Your task to perform on an android device: toggle wifi Image 0: 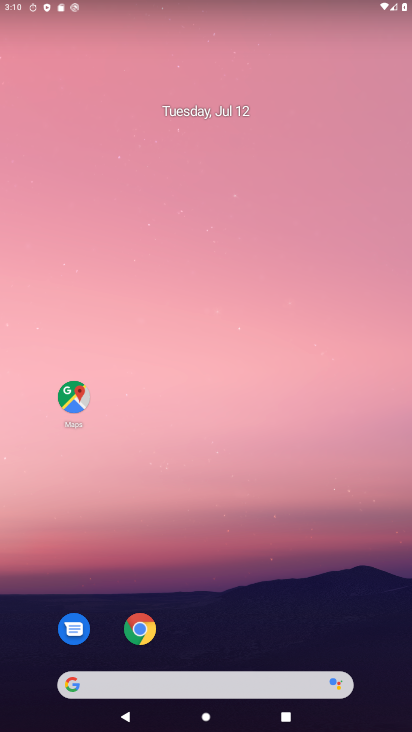
Step 0: press home button
Your task to perform on an android device: toggle wifi Image 1: 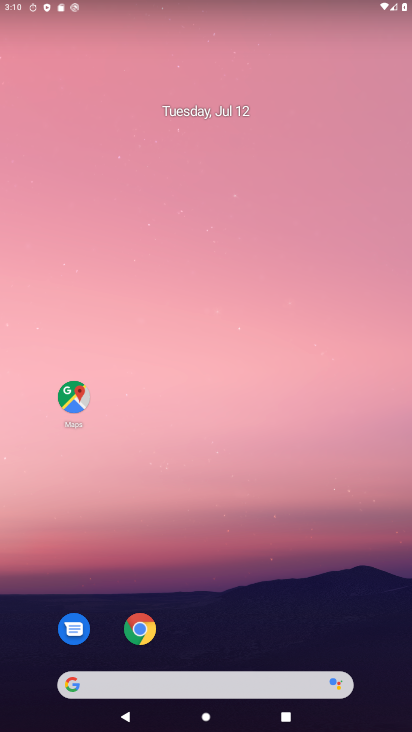
Step 1: drag from (257, 8) to (272, 534)
Your task to perform on an android device: toggle wifi Image 2: 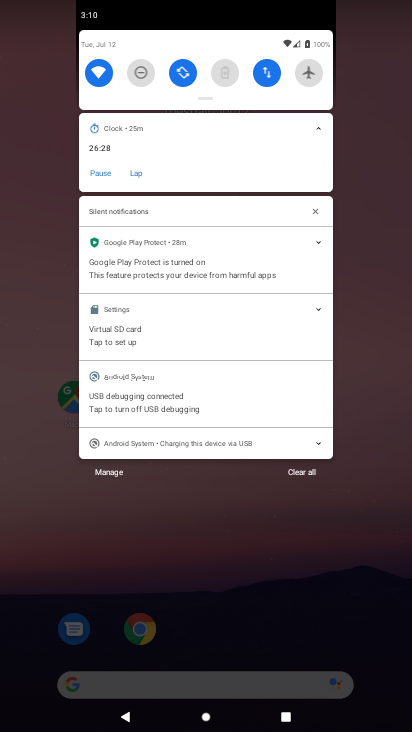
Step 2: click (101, 66)
Your task to perform on an android device: toggle wifi Image 3: 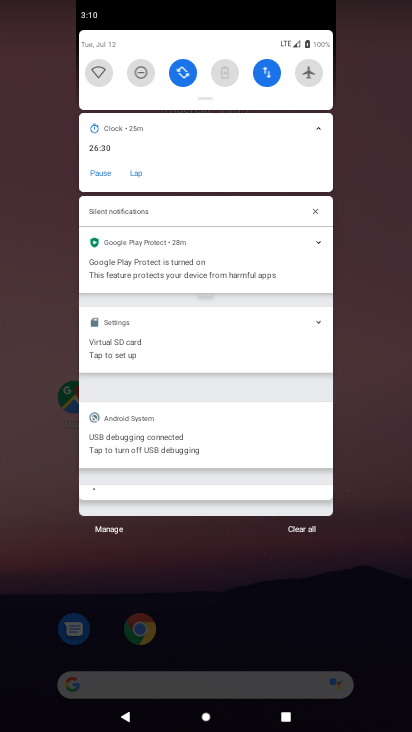
Step 3: task complete